Your task to perform on an android device: Go to Google Image 0: 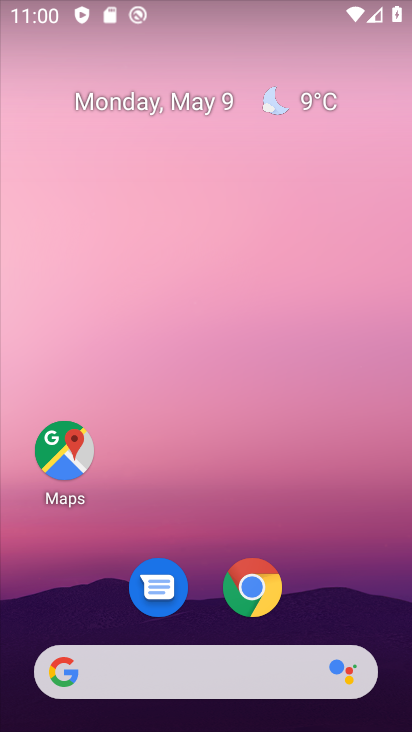
Step 0: click (202, 653)
Your task to perform on an android device: Go to Google Image 1: 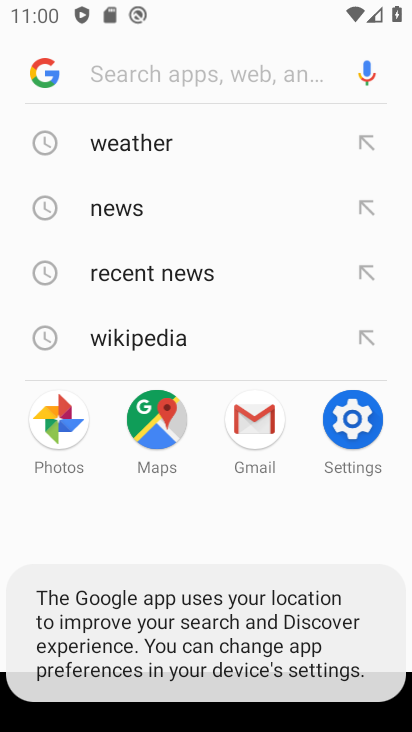
Step 1: click (53, 69)
Your task to perform on an android device: Go to Google Image 2: 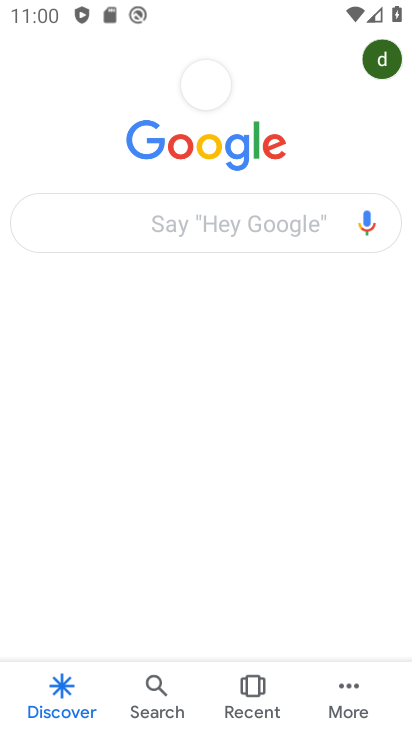
Step 2: click (53, 75)
Your task to perform on an android device: Go to Google Image 3: 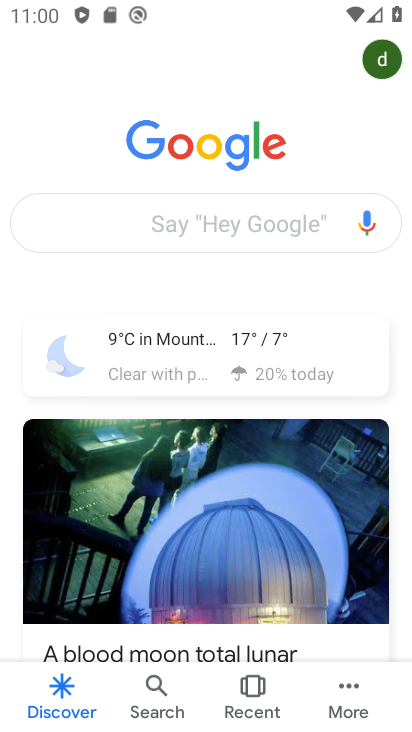
Step 3: task complete